Your task to perform on an android device: star an email in the gmail app Image 0: 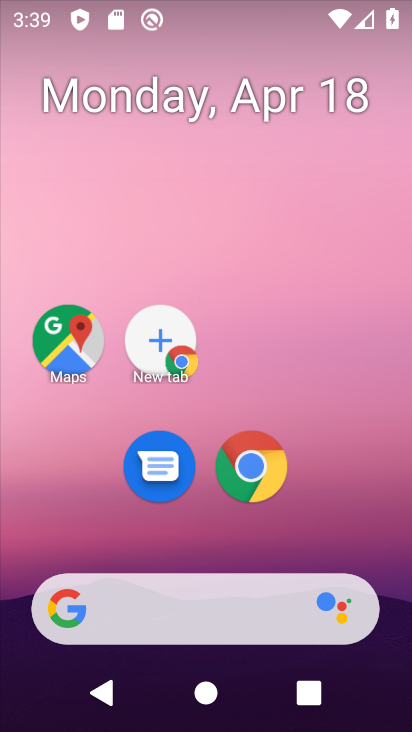
Step 0: drag from (376, 472) to (248, 19)
Your task to perform on an android device: star an email in the gmail app Image 1: 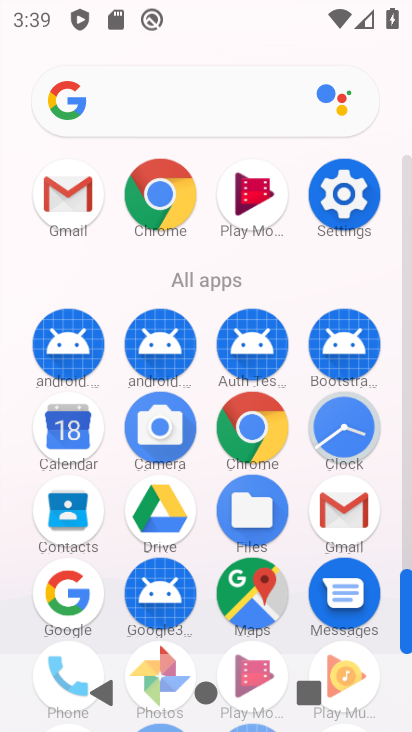
Step 1: click (344, 508)
Your task to perform on an android device: star an email in the gmail app Image 2: 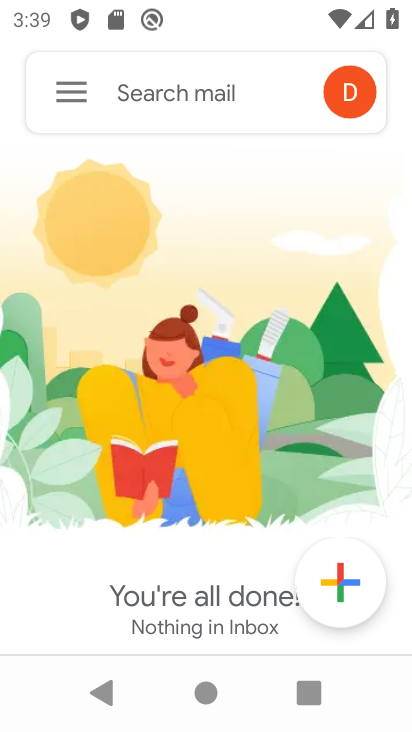
Step 2: click (72, 97)
Your task to perform on an android device: star an email in the gmail app Image 3: 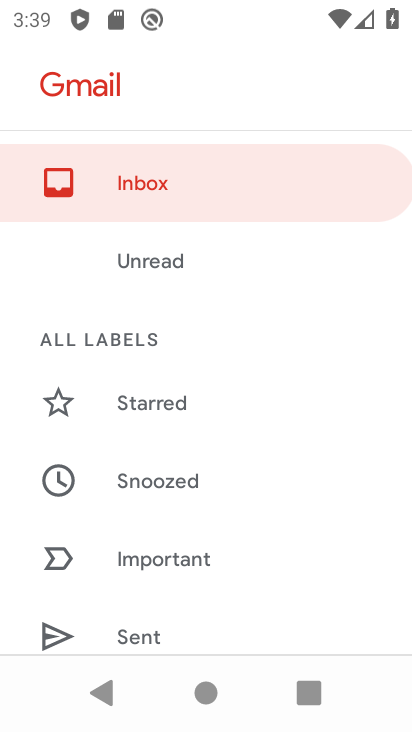
Step 3: drag from (279, 557) to (281, 219)
Your task to perform on an android device: star an email in the gmail app Image 4: 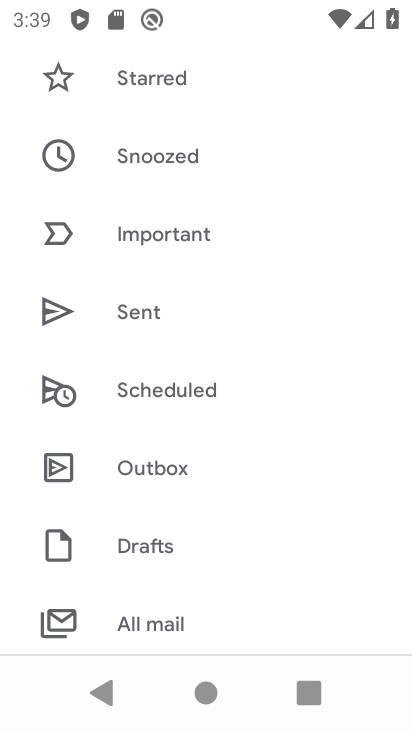
Step 4: click (194, 619)
Your task to perform on an android device: star an email in the gmail app Image 5: 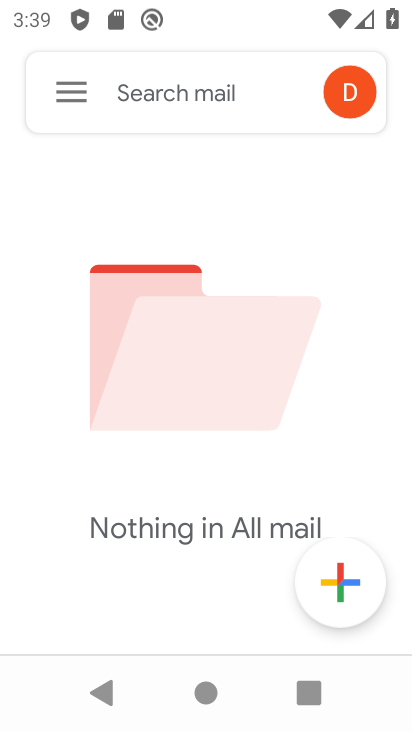
Step 5: task complete